Your task to perform on an android device: Open Google Chrome Image 0: 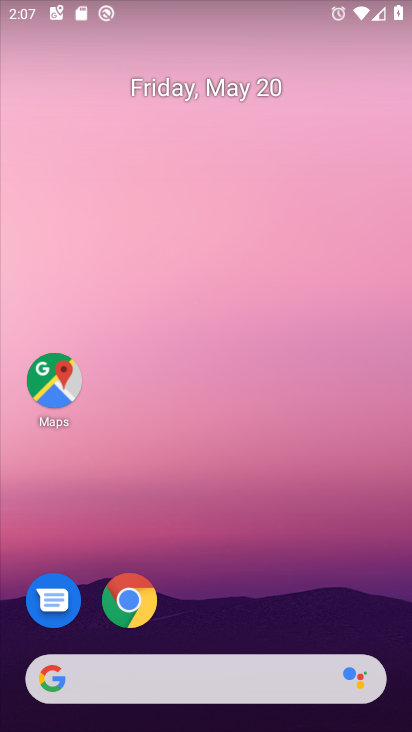
Step 0: click (145, 611)
Your task to perform on an android device: Open Google Chrome Image 1: 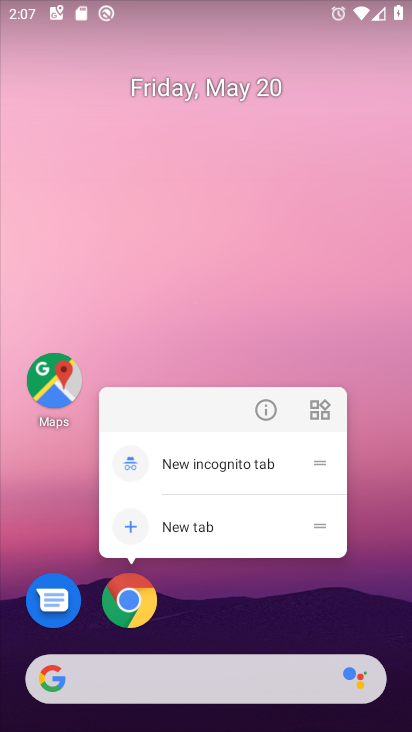
Step 1: click (139, 608)
Your task to perform on an android device: Open Google Chrome Image 2: 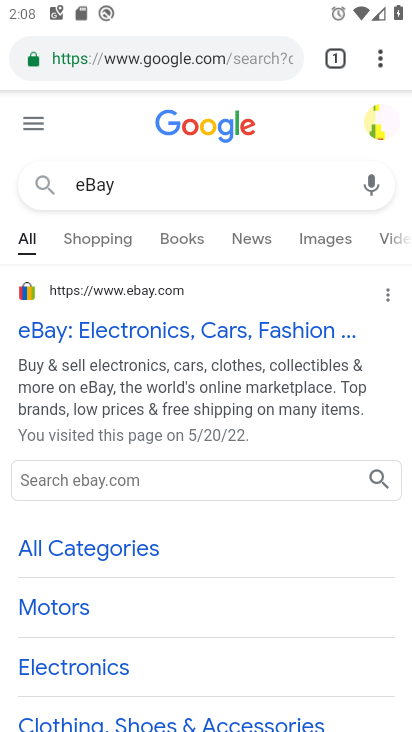
Step 2: task complete